Your task to perform on an android device: delete a single message in the gmail app Image 0: 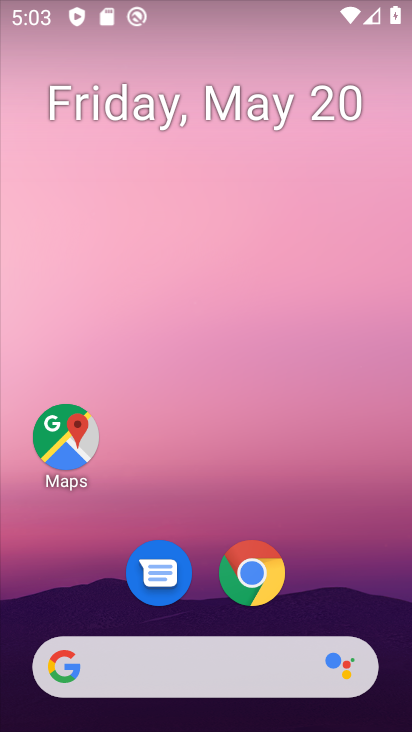
Step 0: drag from (346, 558) to (253, 44)
Your task to perform on an android device: delete a single message in the gmail app Image 1: 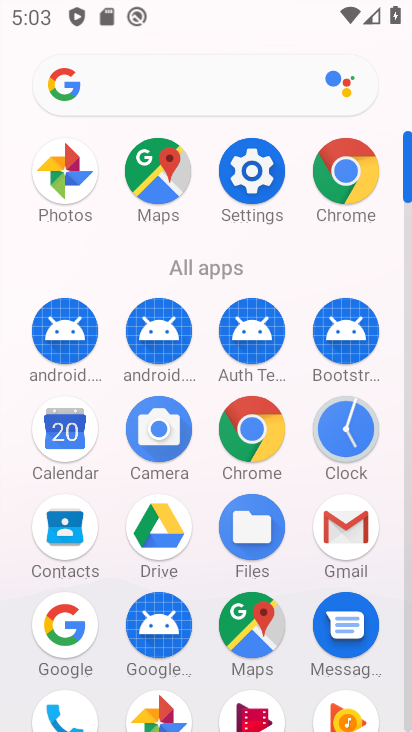
Step 1: click (357, 524)
Your task to perform on an android device: delete a single message in the gmail app Image 2: 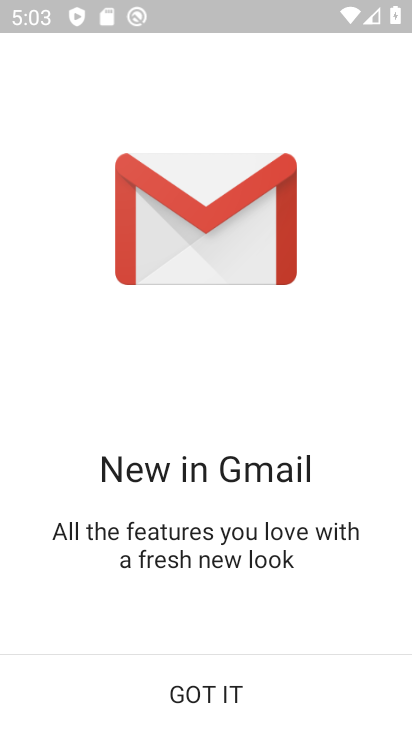
Step 2: click (240, 683)
Your task to perform on an android device: delete a single message in the gmail app Image 3: 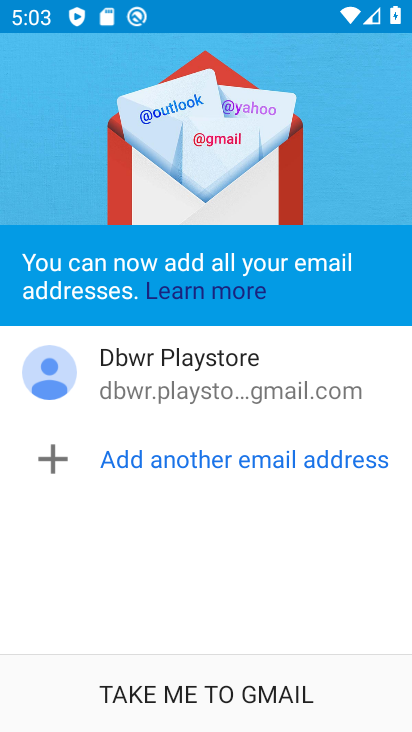
Step 3: click (246, 679)
Your task to perform on an android device: delete a single message in the gmail app Image 4: 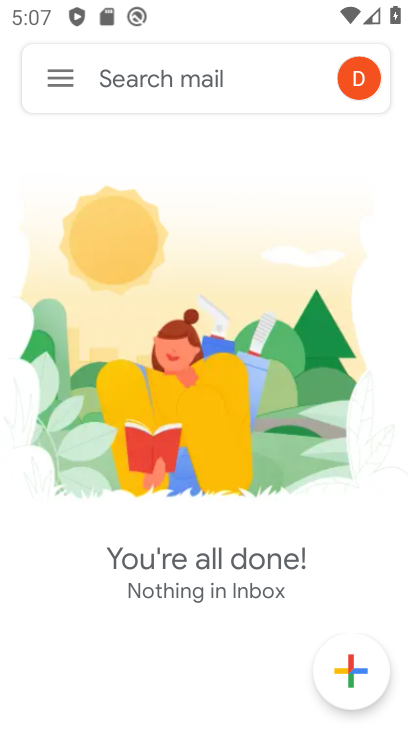
Step 4: task complete